Your task to perform on an android device: Go to Reddit.com Image 0: 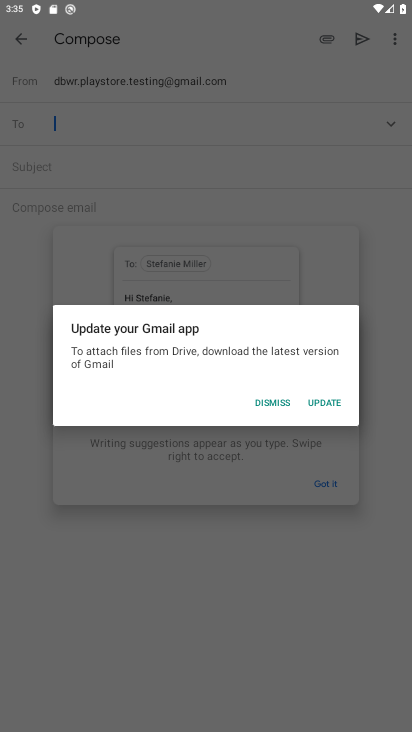
Step 0: press home button
Your task to perform on an android device: Go to Reddit.com Image 1: 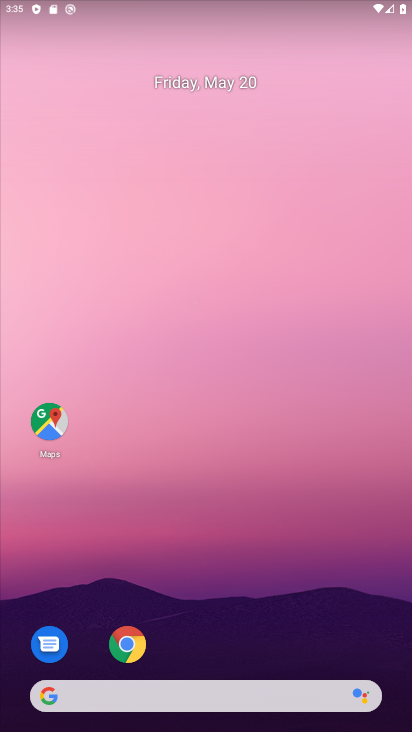
Step 1: drag from (188, 583) to (264, 235)
Your task to perform on an android device: Go to Reddit.com Image 2: 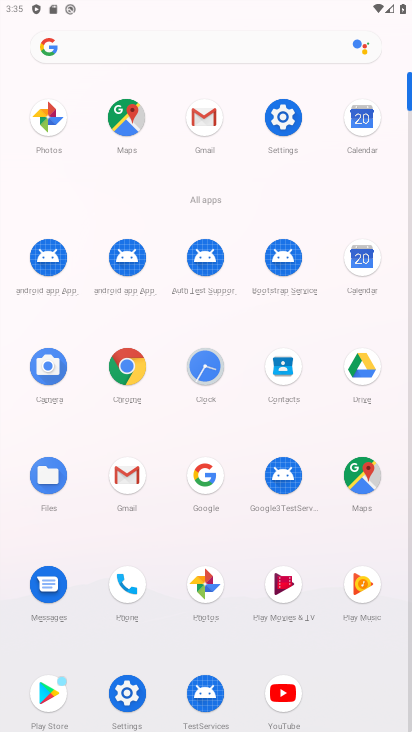
Step 2: click (196, 485)
Your task to perform on an android device: Go to Reddit.com Image 3: 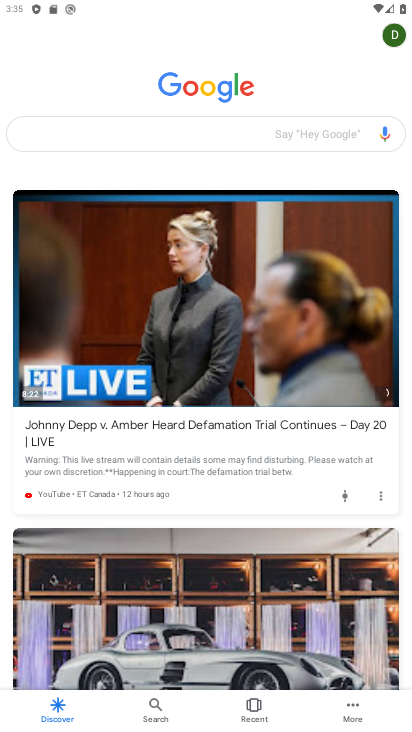
Step 3: click (321, 135)
Your task to perform on an android device: Go to Reddit.com Image 4: 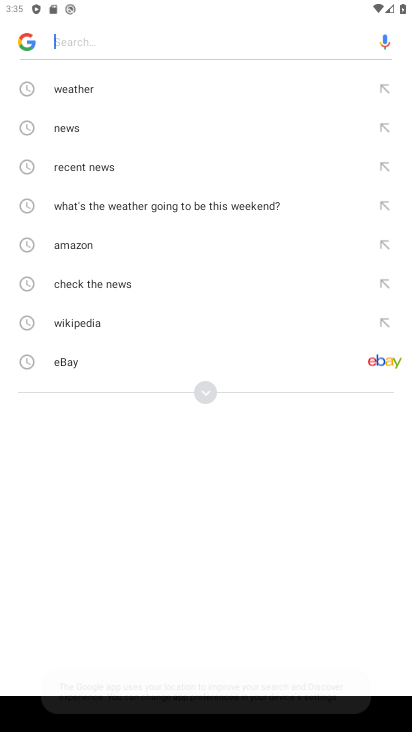
Step 4: click (213, 396)
Your task to perform on an android device: Go to Reddit.com Image 5: 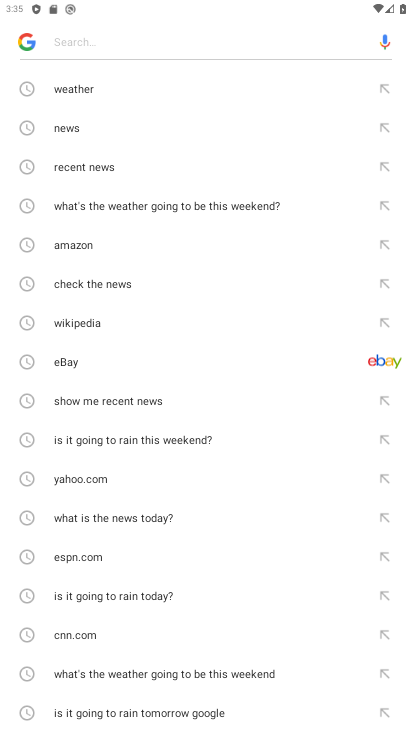
Step 5: drag from (152, 600) to (209, 392)
Your task to perform on an android device: Go to Reddit.com Image 6: 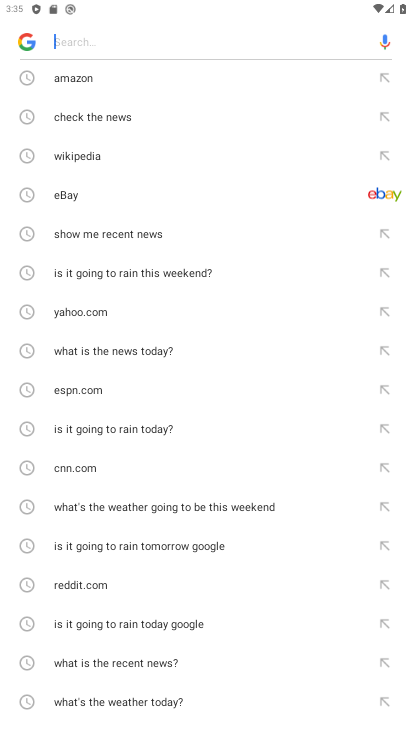
Step 6: click (92, 582)
Your task to perform on an android device: Go to Reddit.com Image 7: 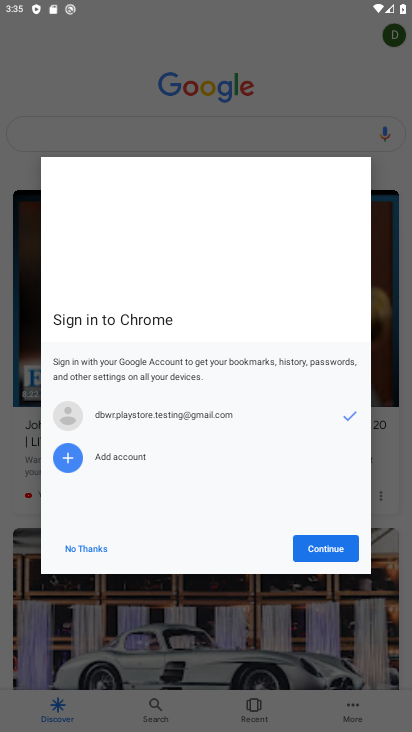
Step 7: click (339, 560)
Your task to perform on an android device: Go to Reddit.com Image 8: 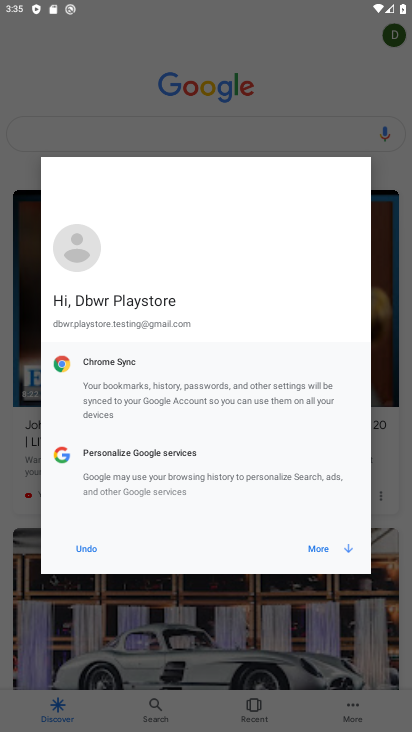
Step 8: click (338, 558)
Your task to perform on an android device: Go to Reddit.com Image 9: 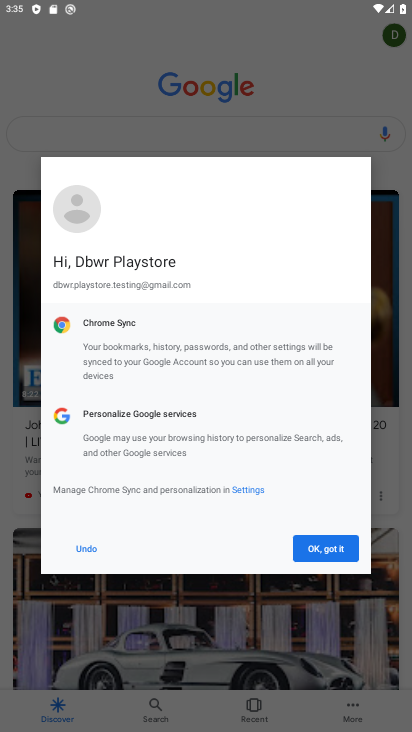
Step 9: click (338, 558)
Your task to perform on an android device: Go to Reddit.com Image 10: 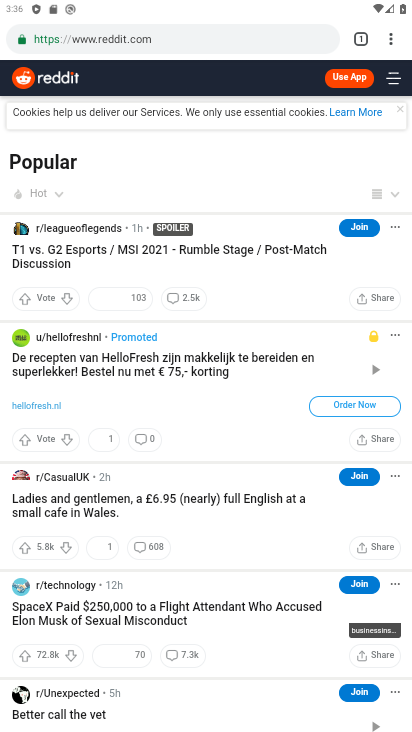
Step 10: task complete